Your task to perform on an android device: find photos in the google photos app Image 0: 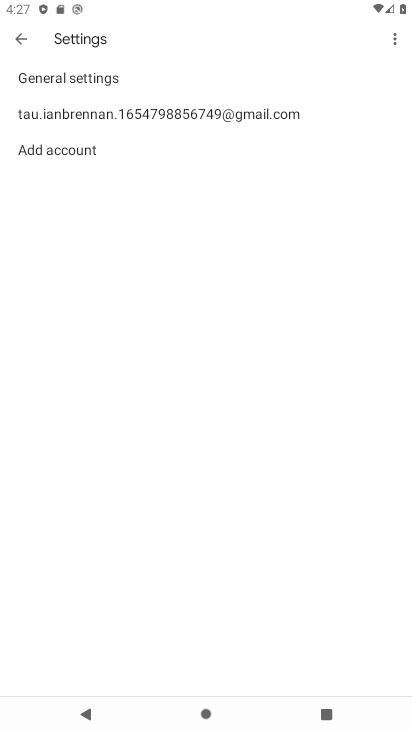
Step 0: press home button
Your task to perform on an android device: find photos in the google photos app Image 1: 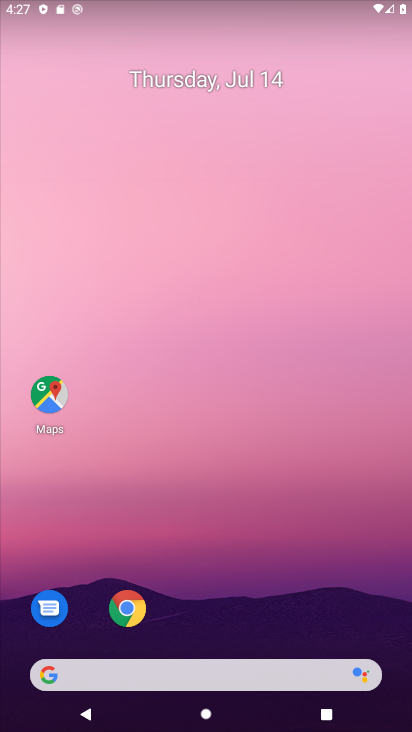
Step 1: drag from (213, 625) to (205, 181)
Your task to perform on an android device: find photos in the google photos app Image 2: 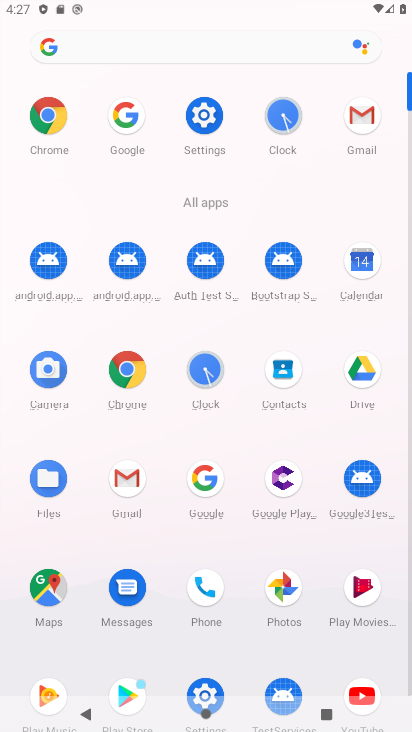
Step 2: click (270, 592)
Your task to perform on an android device: find photos in the google photos app Image 3: 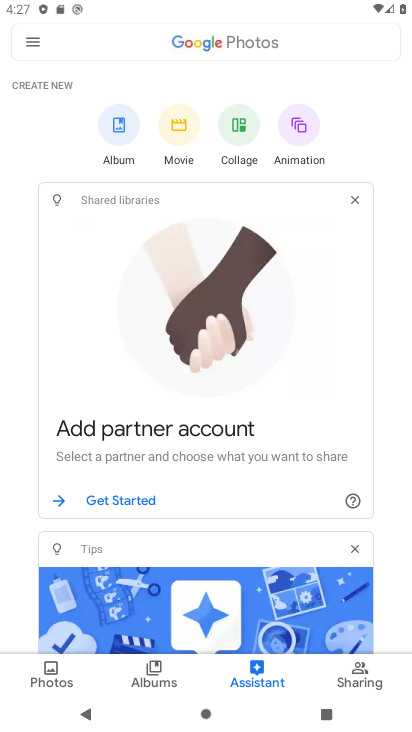
Step 3: click (51, 667)
Your task to perform on an android device: find photos in the google photos app Image 4: 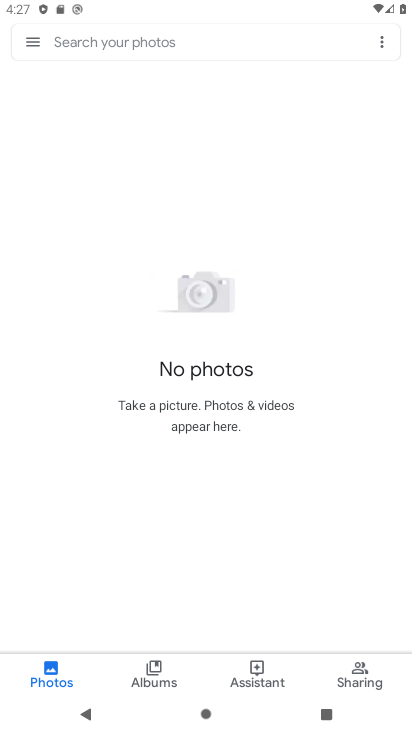
Step 4: click (211, 40)
Your task to perform on an android device: find photos in the google photos app Image 5: 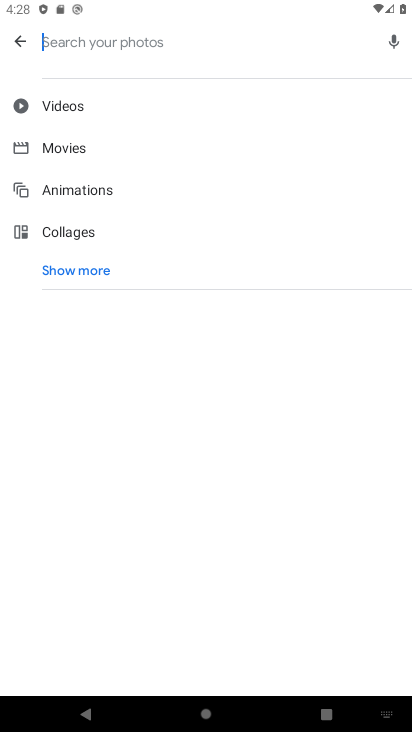
Step 5: type "a"
Your task to perform on an android device: find photos in the google photos app Image 6: 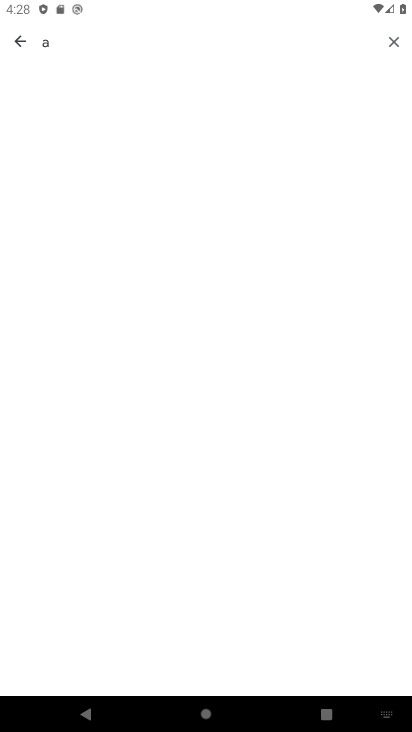
Step 6: task complete